Your task to perform on an android device: What's on my calendar today? Image 0: 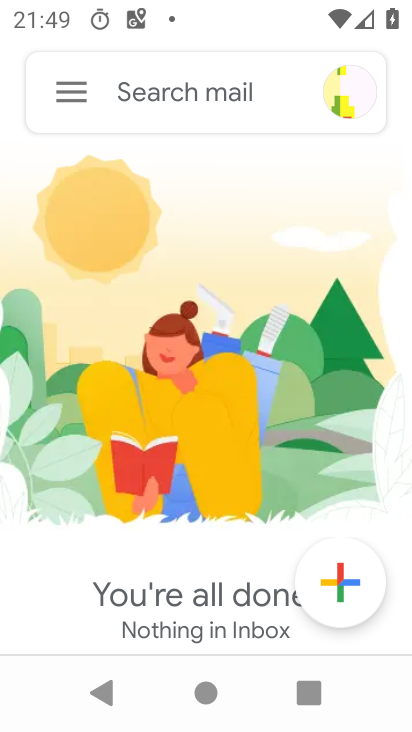
Step 0: press home button
Your task to perform on an android device: What's on my calendar today? Image 1: 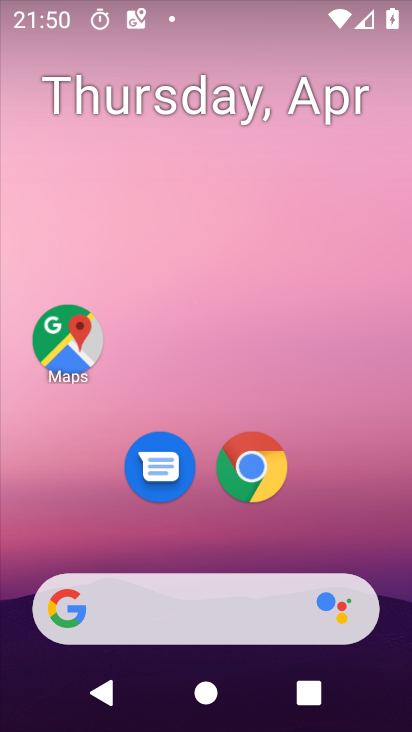
Step 1: drag from (200, 565) to (410, 8)
Your task to perform on an android device: What's on my calendar today? Image 2: 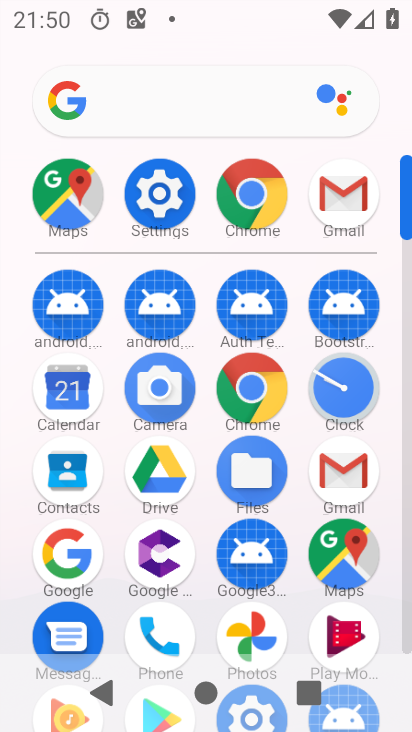
Step 2: click (56, 381)
Your task to perform on an android device: What's on my calendar today? Image 3: 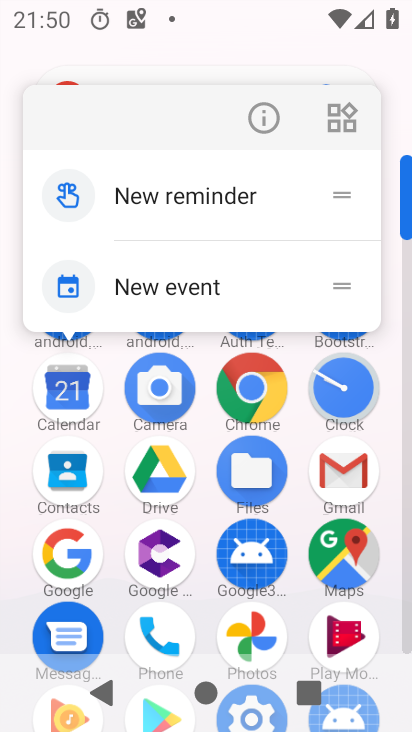
Step 3: click (89, 412)
Your task to perform on an android device: What's on my calendar today? Image 4: 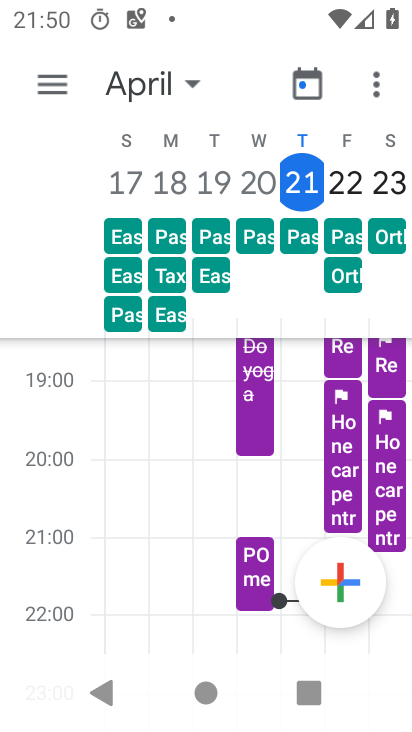
Step 4: click (305, 186)
Your task to perform on an android device: What's on my calendar today? Image 5: 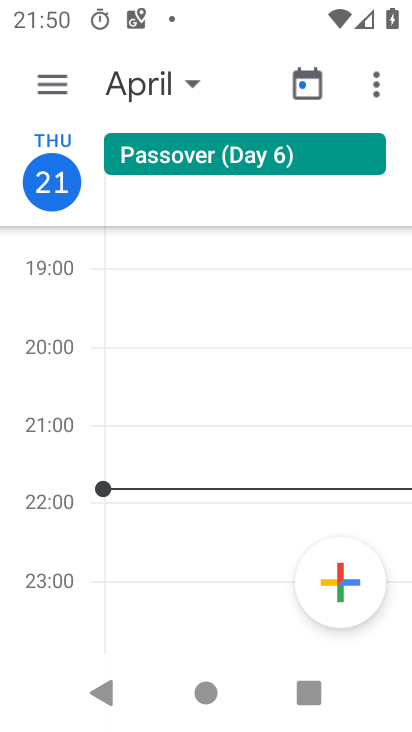
Step 5: task complete